Your task to perform on an android device: Go to internet settings Image 0: 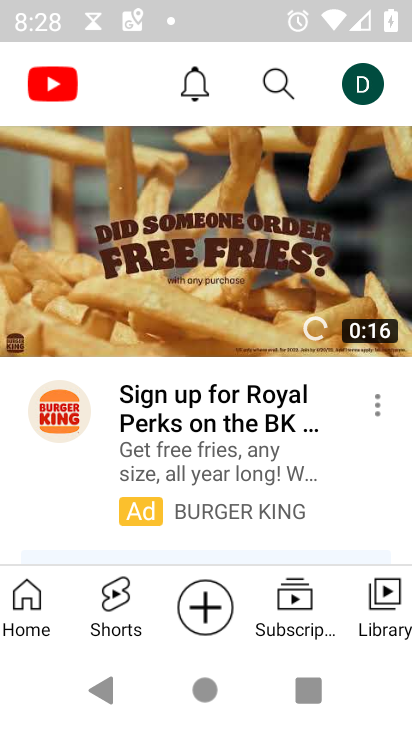
Step 0: press home button
Your task to perform on an android device: Go to internet settings Image 1: 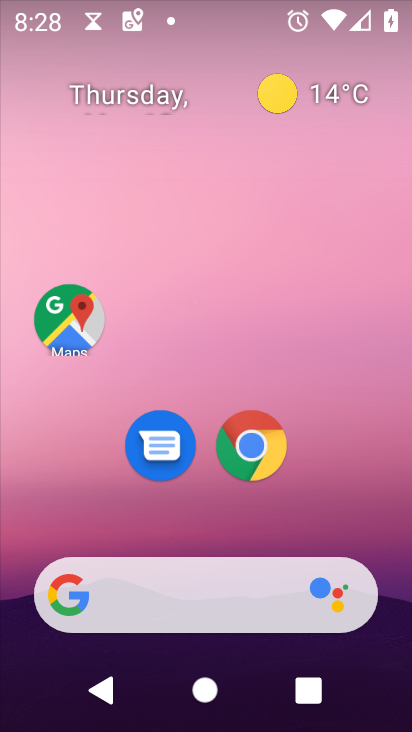
Step 1: click (283, 96)
Your task to perform on an android device: Go to internet settings Image 2: 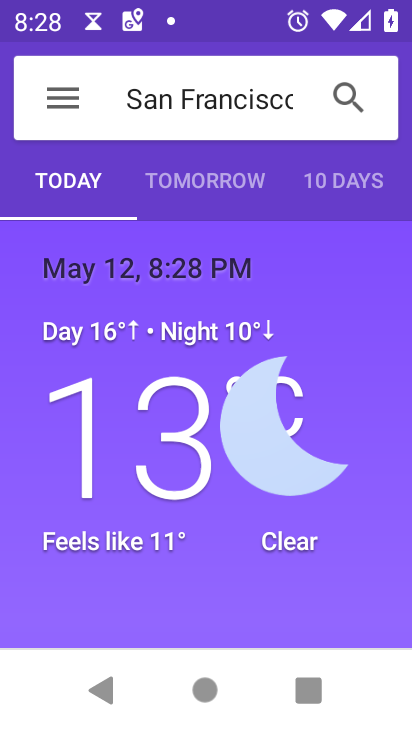
Step 2: press back button
Your task to perform on an android device: Go to internet settings Image 3: 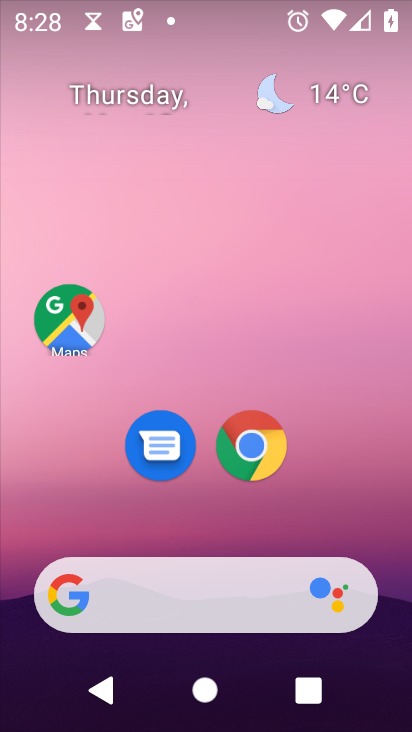
Step 3: drag from (224, 725) to (227, 96)
Your task to perform on an android device: Go to internet settings Image 4: 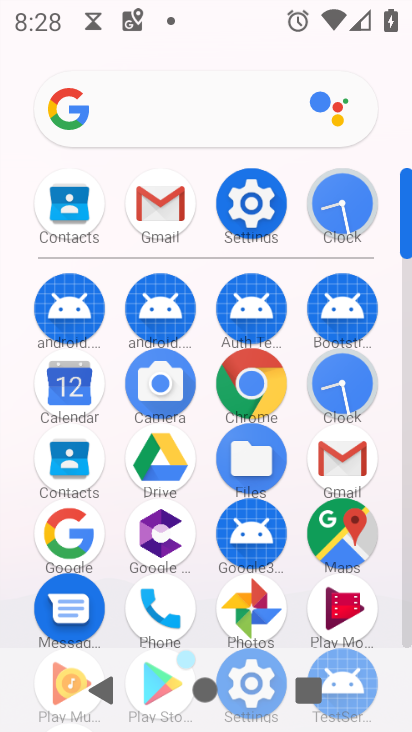
Step 4: click (255, 201)
Your task to perform on an android device: Go to internet settings Image 5: 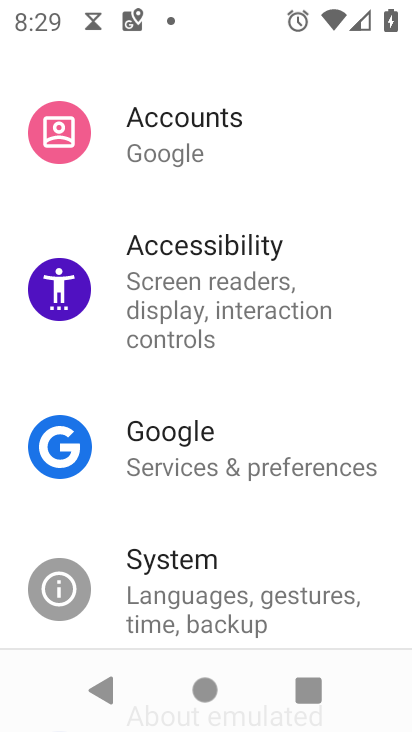
Step 5: drag from (236, 186) to (226, 582)
Your task to perform on an android device: Go to internet settings Image 6: 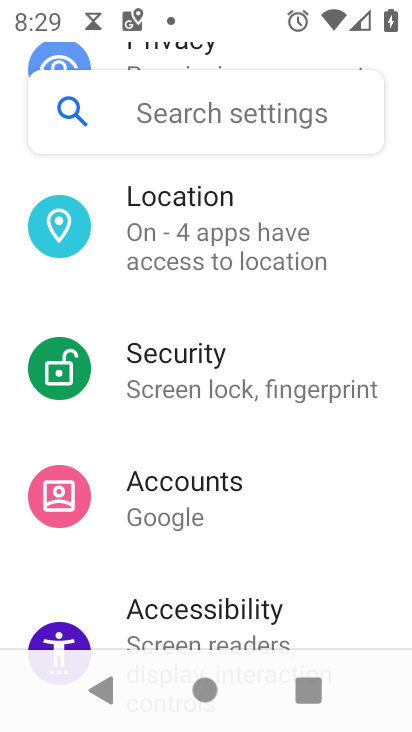
Step 6: drag from (243, 208) to (239, 533)
Your task to perform on an android device: Go to internet settings Image 7: 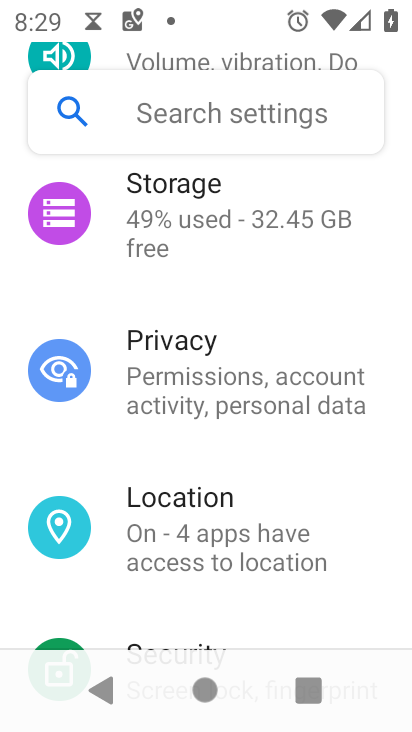
Step 7: drag from (261, 214) to (257, 626)
Your task to perform on an android device: Go to internet settings Image 8: 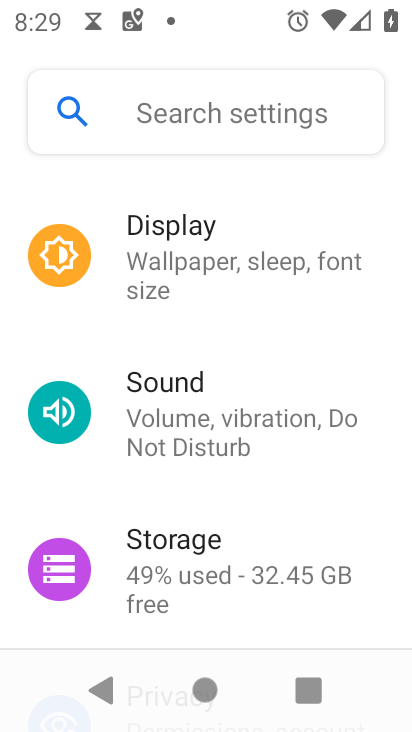
Step 8: drag from (302, 227) to (317, 558)
Your task to perform on an android device: Go to internet settings Image 9: 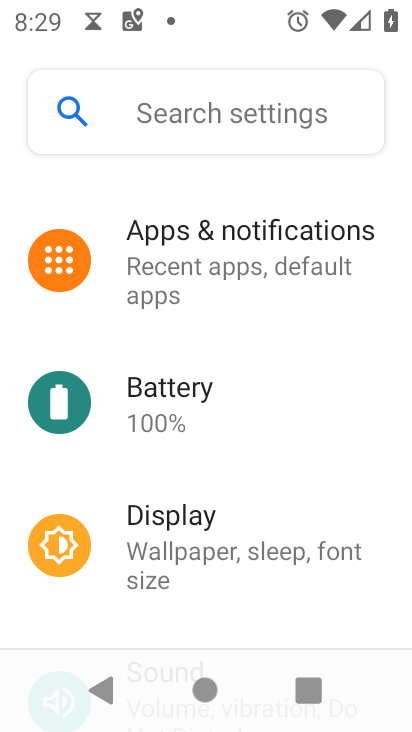
Step 9: drag from (285, 184) to (281, 626)
Your task to perform on an android device: Go to internet settings Image 10: 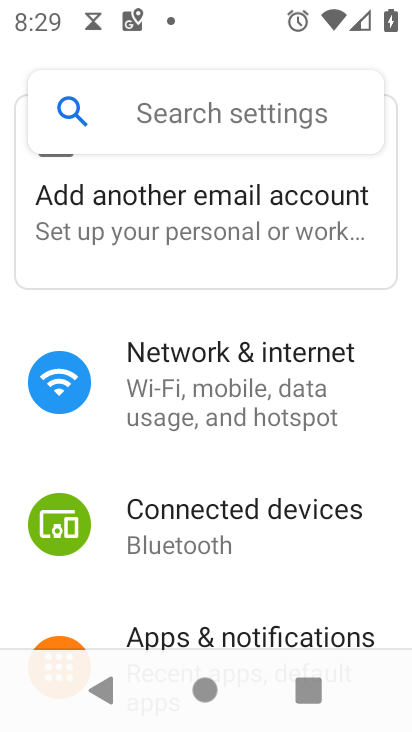
Step 10: click (232, 375)
Your task to perform on an android device: Go to internet settings Image 11: 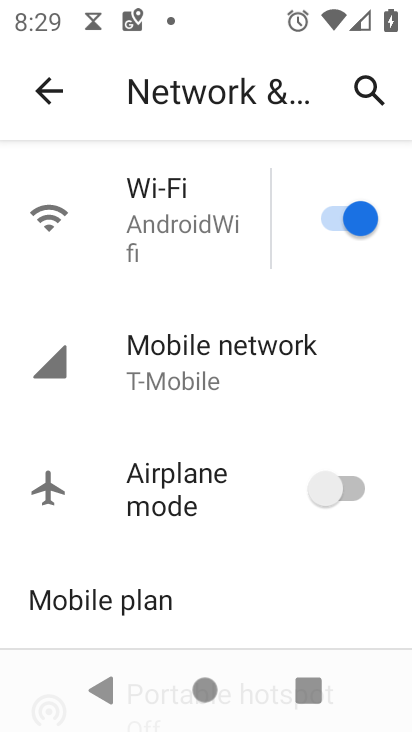
Step 11: drag from (182, 546) to (198, 249)
Your task to perform on an android device: Go to internet settings Image 12: 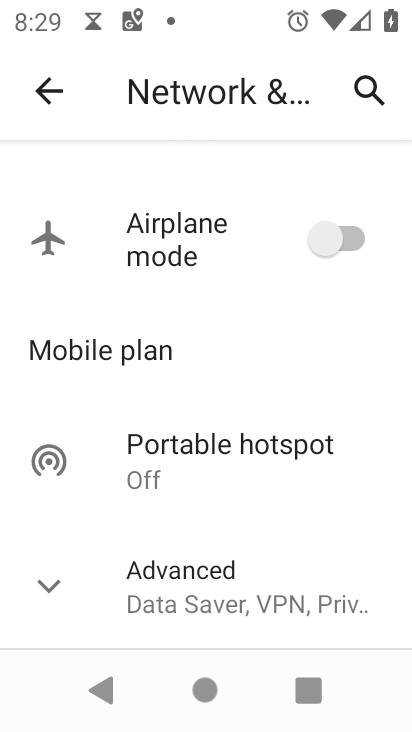
Step 12: drag from (200, 537) to (215, 210)
Your task to perform on an android device: Go to internet settings Image 13: 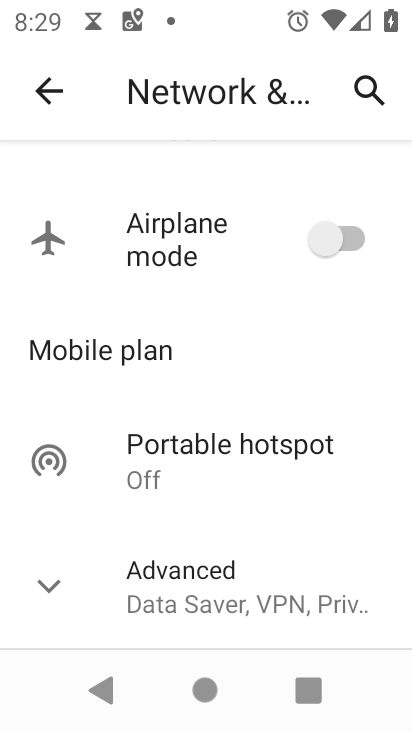
Step 13: drag from (216, 322) to (227, 577)
Your task to perform on an android device: Go to internet settings Image 14: 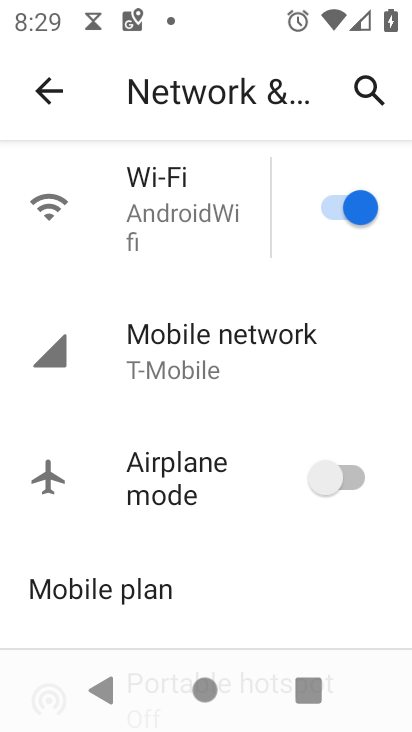
Step 14: drag from (196, 271) to (191, 504)
Your task to perform on an android device: Go to internet settings Image 15: 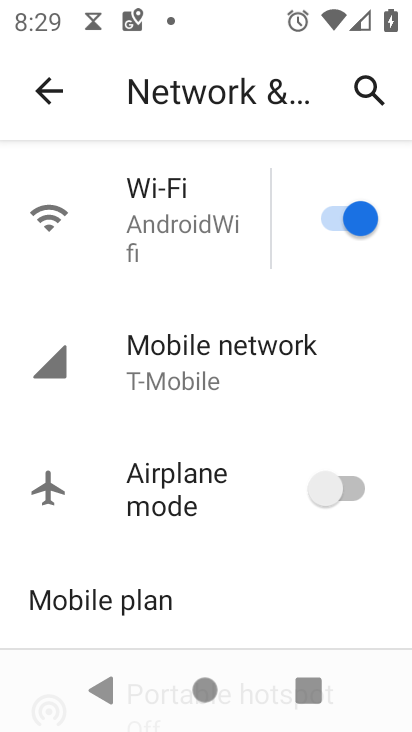
Step 15: drag from (267, 187) to (251, 358)
Your task to perform on an android device: Go to internet settings Image 16: 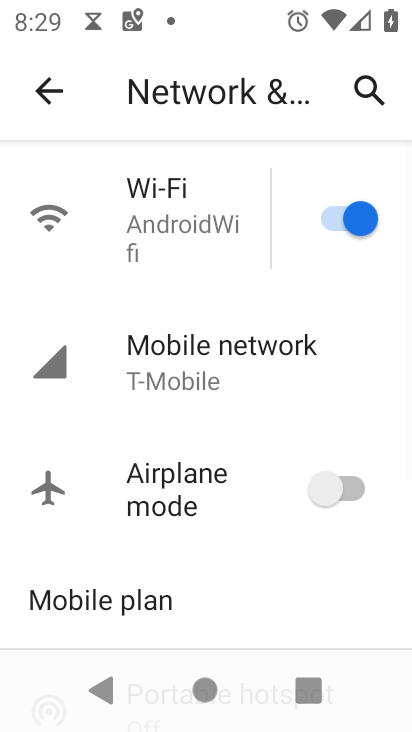
Step 16: drag from (191, 588) to (224, 246)
Your task to perform on an android device: Go to internet settings Image 17: 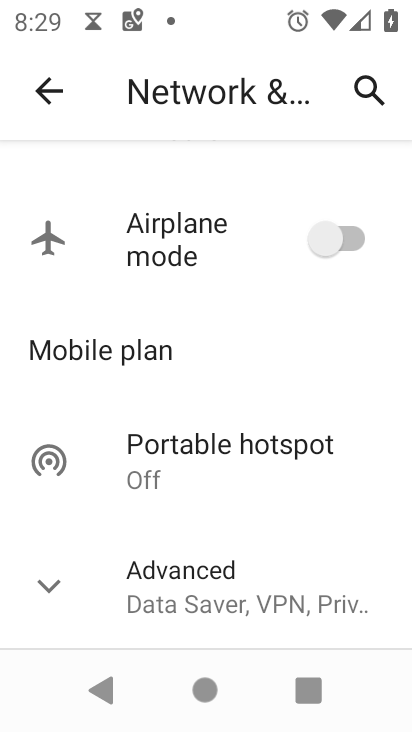
Step 17: click (194, 575)
Your task to perform on an android device: Go to internet settings Image 18: 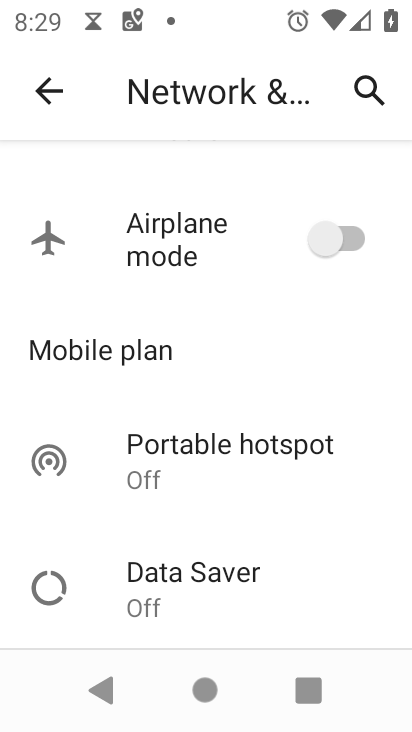
Step 18: task complete